Your task to perform on an android device: Do I have any events tomorrow? Image 0: 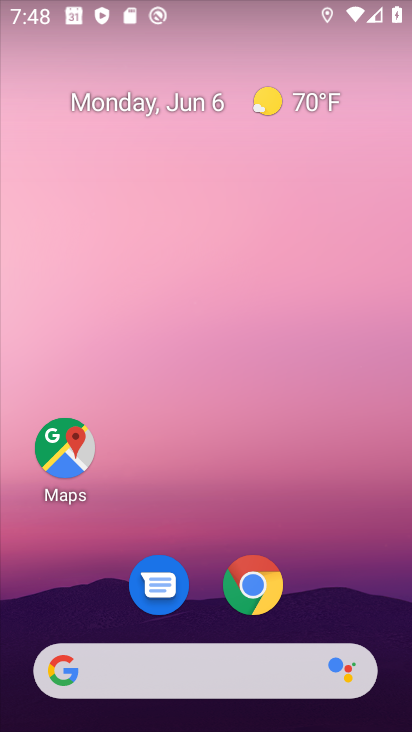
Step 0: drag from (209, 501) to (177, 0)
Your task to perform on an android device: Do I have any events tomorrow? Image 1: 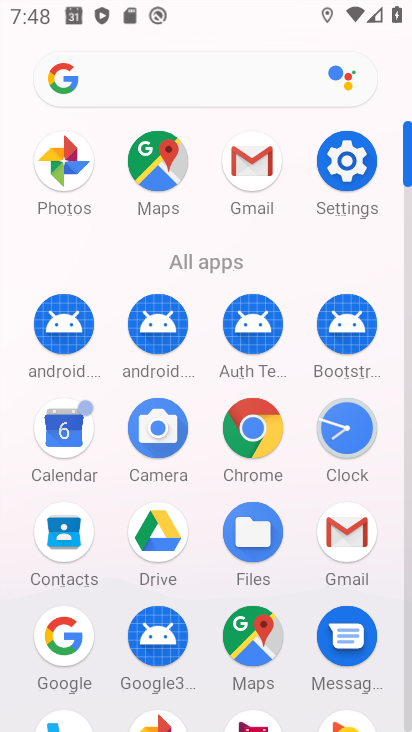
Step 1: click (74, 433)
Your task to perform on an android device: Do I have any events tomorrow? Image 2: 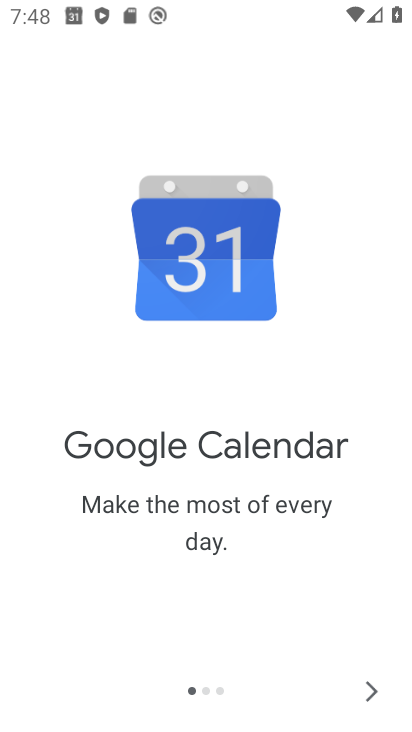
Step 2: click (364, 684)
Your task to perform on an android device: Do I have any events tomorrow? Image 3: 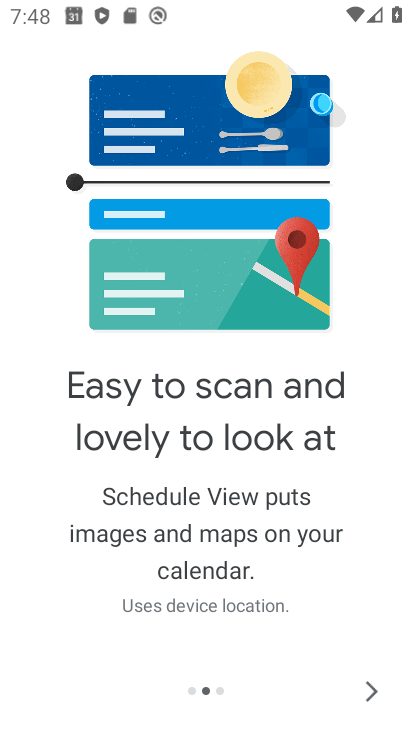
Step 3: click (367, 687)
Your task to perform on an android device: Do I have any events tomorrow? Image 4: 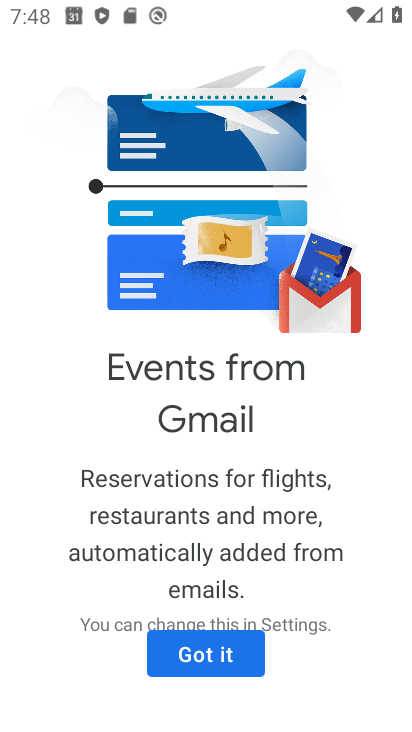
Step 4: click (254, 665)
Your task to perform on an android device: Do I have any events tomorrow? Image 5: 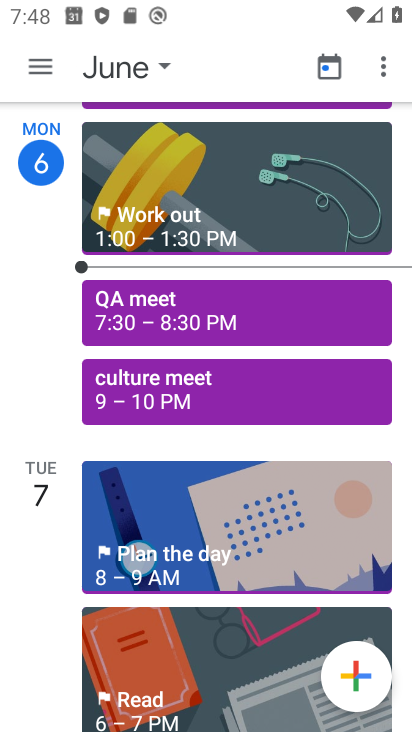
Step 5: task complete